Your task to perform on an android device: Go to accessibility settings Image 0: 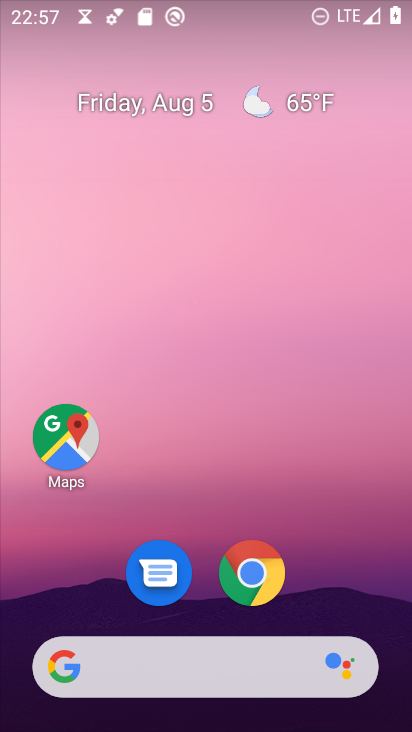
Step 0: drag from (238, 662) to (232, 212)
Your task to perform on an android device: Go to accessibility settings Image 1: 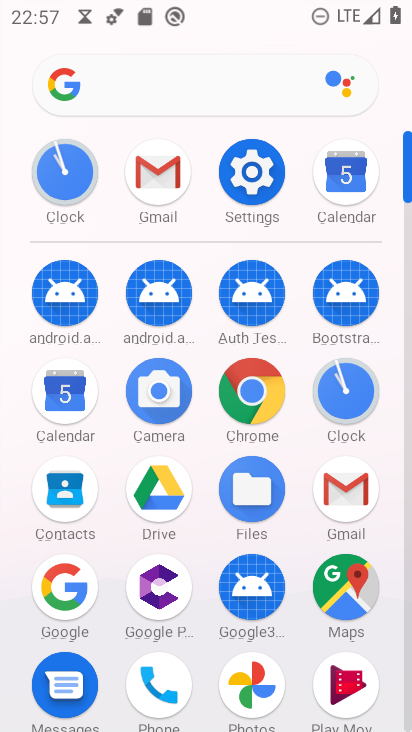
Step 1: click (251, 172)
Your task to perform on an android device: Go to accessibility settings Image 2: 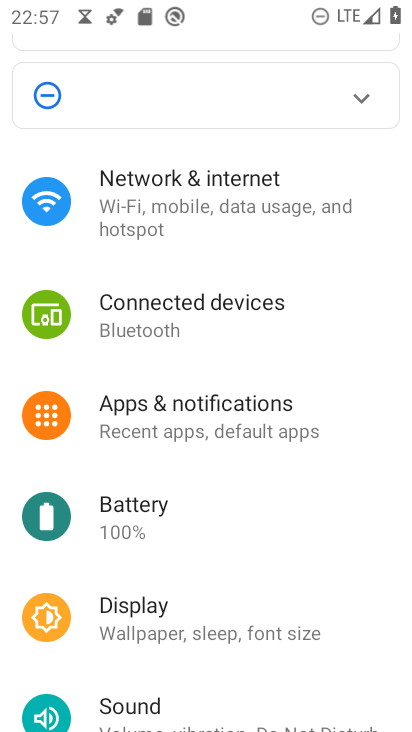
Step 2: drag from (182, 551) to (252, 444)
Your task to perform on an android device: Go to accessibility settings Image 3: 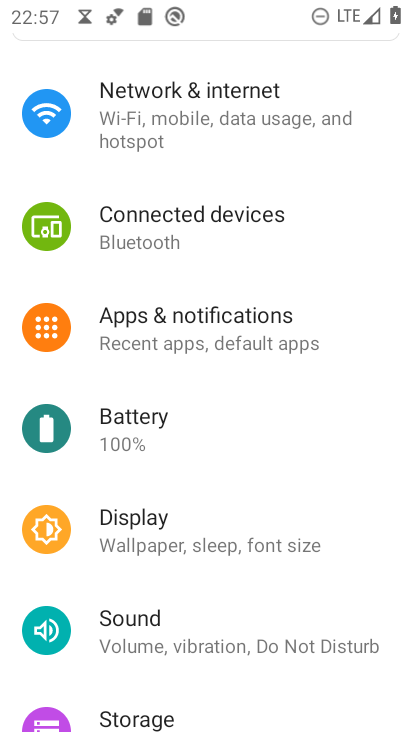
Step 3: drag from (185, 567) to (246, 476)
Your task to perform on an android device: Go to accessibility settings Image 4: 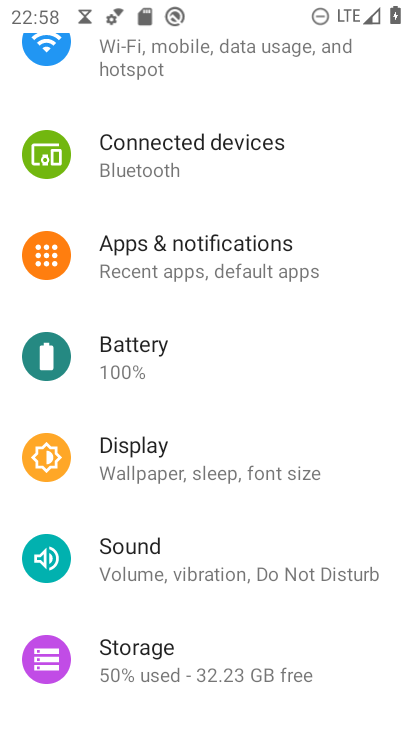
Step 4: drag from (188, 625) to (251, 520)
Your task to perform on an android device: Go to accessibility settings Image 5: 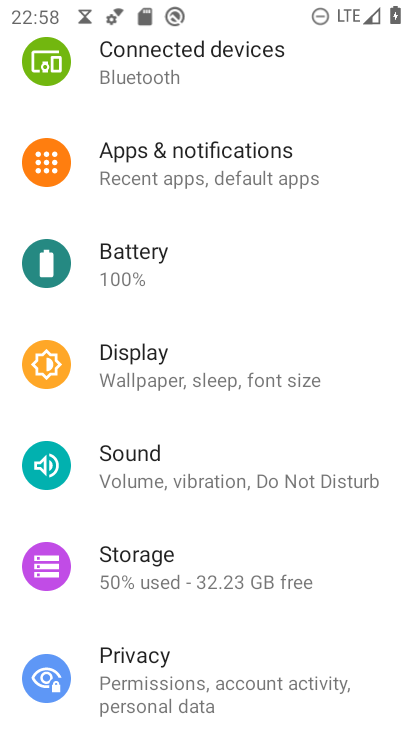
Step 5: drag from (195, 613) to (263, 511)
Your task to perform on an android device: Go to accessibility settings Image 6: 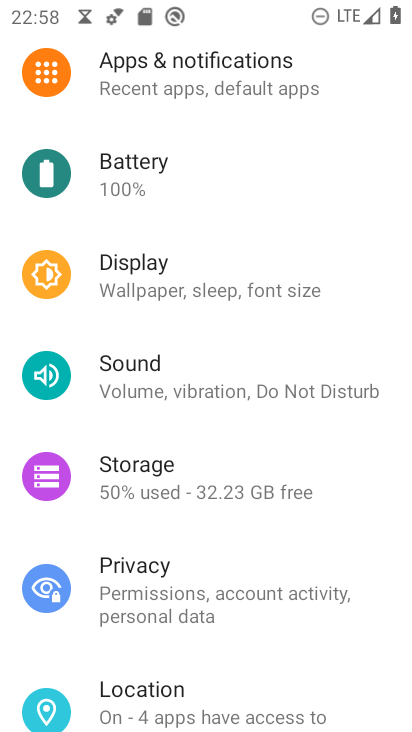
Step 6: drag from (212, 563) to (302, 456)
Your task to perform on an android device: Go to accessibility settings Image 7: 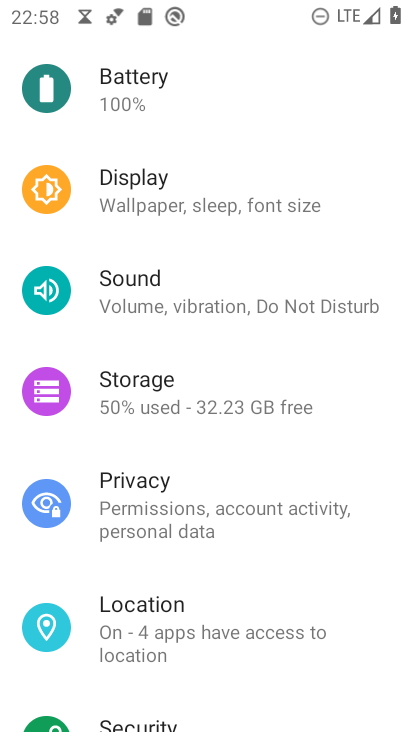
Step 7: drag from (206, 562) to (296, 454)
Your task to perform on an android device: Go to accessibility settings Image 8: 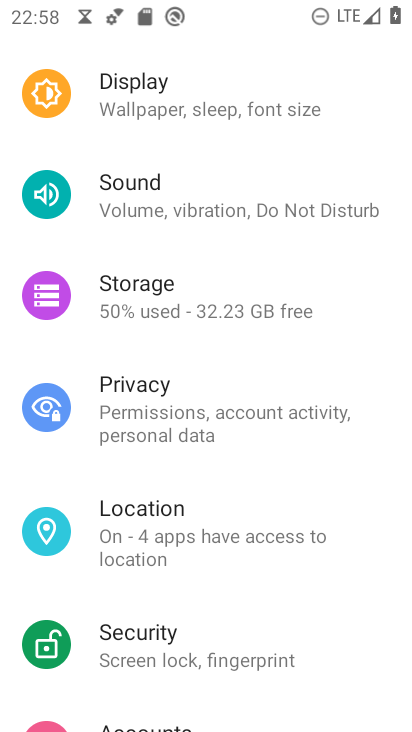
Step 8: drag from (179, 681) to (290, 518)
Your task to perform on an android device: Go to accessibility settings Image 9: 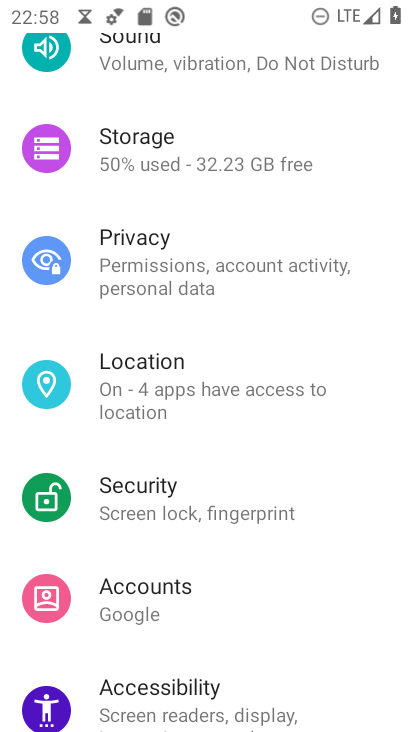
Step 9: drag from (212, 650) to (271, 522)
Your task to perform on an android device: Go to accessibility settings Image 10: 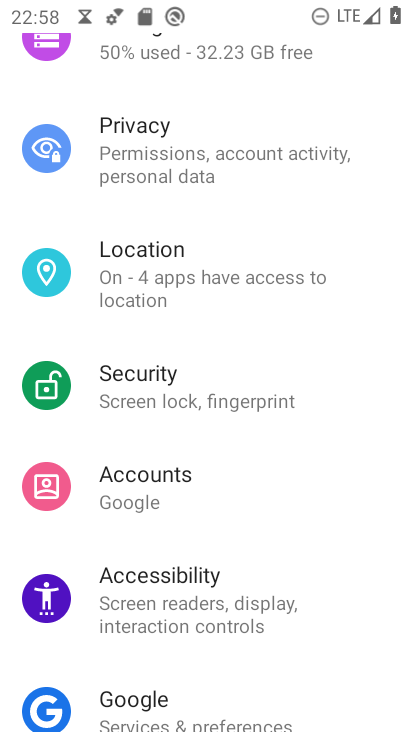
Step 10: click (193, 586)
Your task to perform on an android device: Go to accessibility settings Image 11: 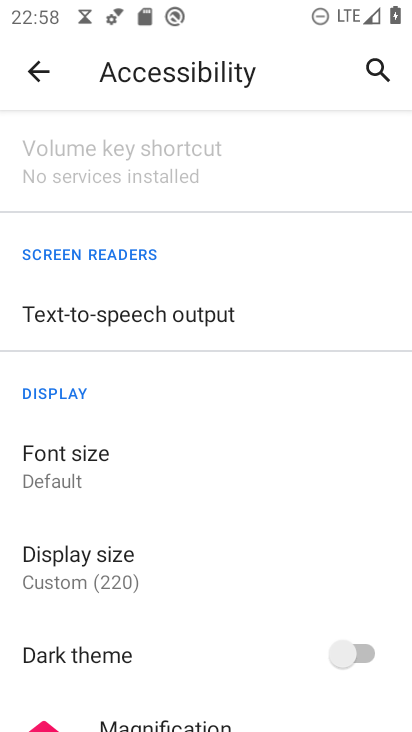
Step 11: task complete